Your task to perform on an android device: Open the phone app and click the voicemail tab. Image 0: 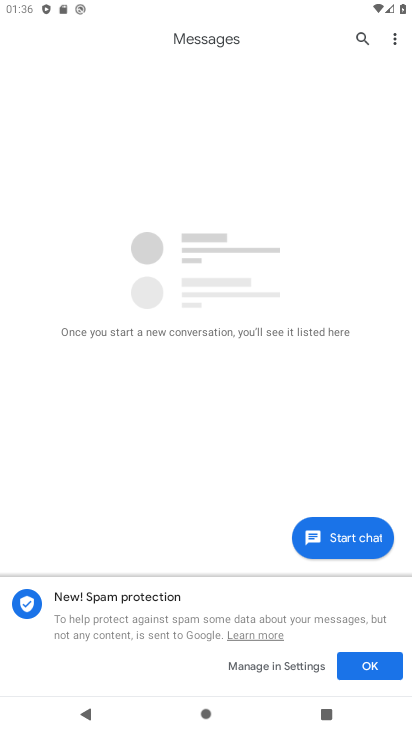
Step 0: press home button
Your task to perform on an android device: Open the phone app and click the voicemail tab. Image 1: 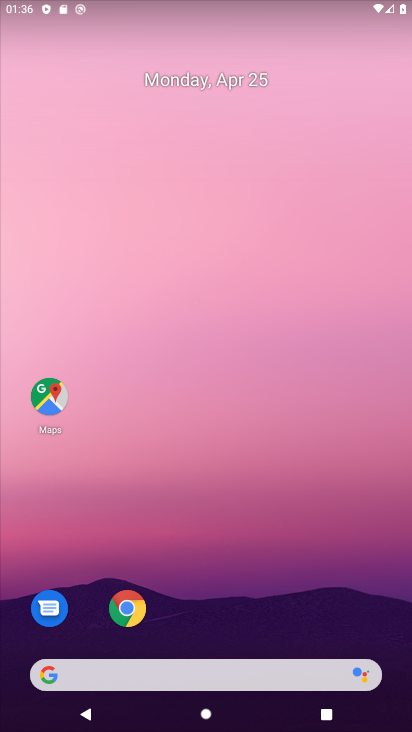
Step 1: drag from (198, 645) to (270, 55)
Your task to perform on an android device: Open the phone app and click the voicemail tab. Image 2: 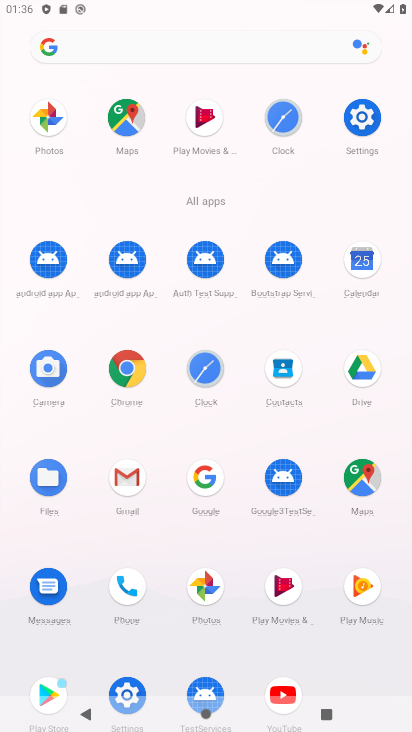
Step 2: click (129, 583)
Your task to perform on an android device: Open the phone app and click the voicemail tab. Image 3: 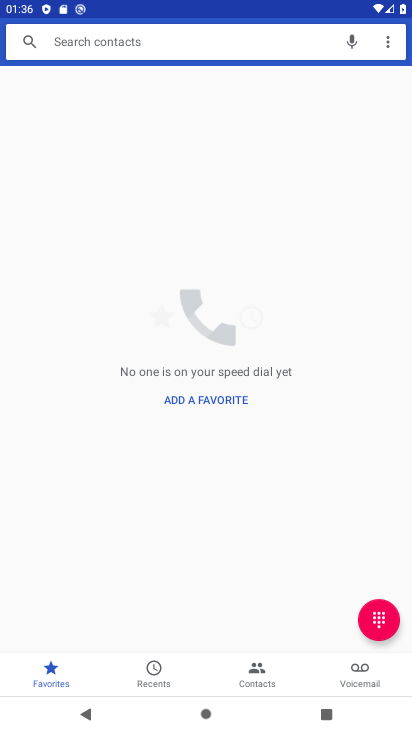
Step 3: click (353, 670)
Your task to perform on an android device: Open the phone app and click the voicemail tab. Image 4: 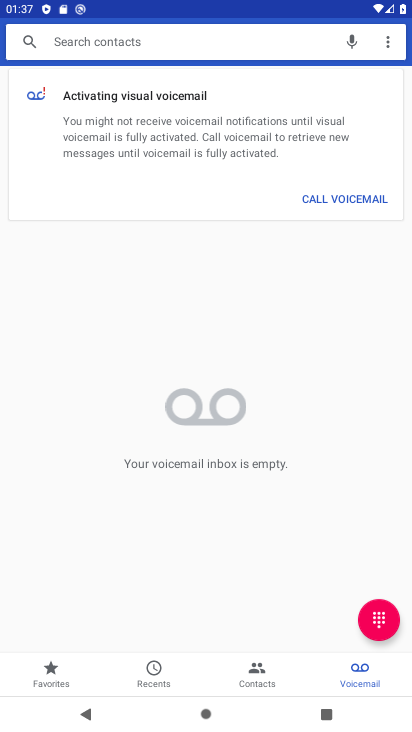
Step 4: task complete